Your task to perform on an android device: Open maps Image 0: 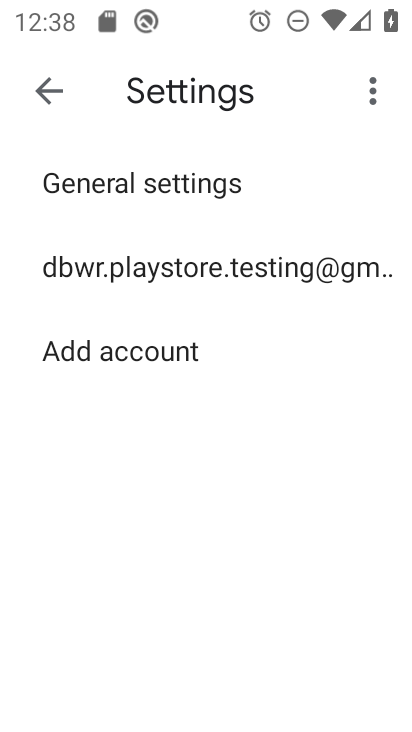
Step 0: press home button
Your task to perform on an android device: Open maps Image 1: 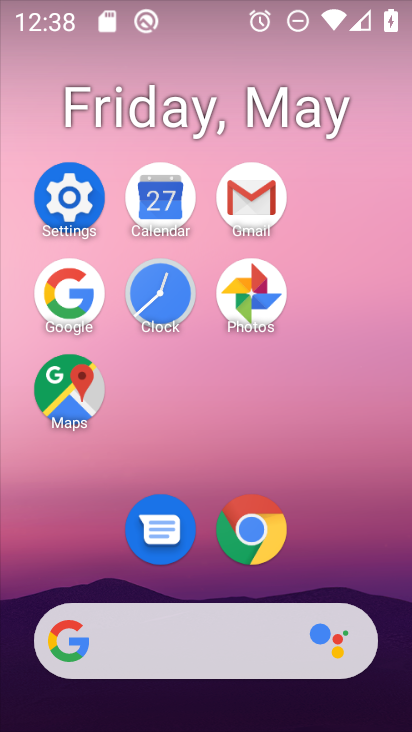
Step 1: click (80, 381)
Your task to perform on an android device: Open maps Image 2: 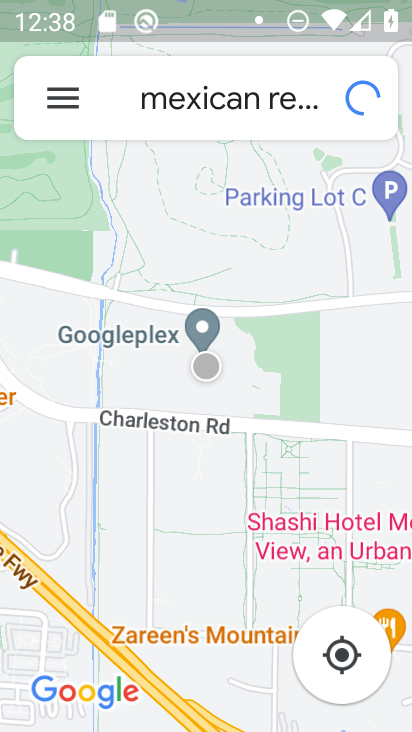
Step 2: task complete